Your task to perform on an android device: change the clock style Image 0: 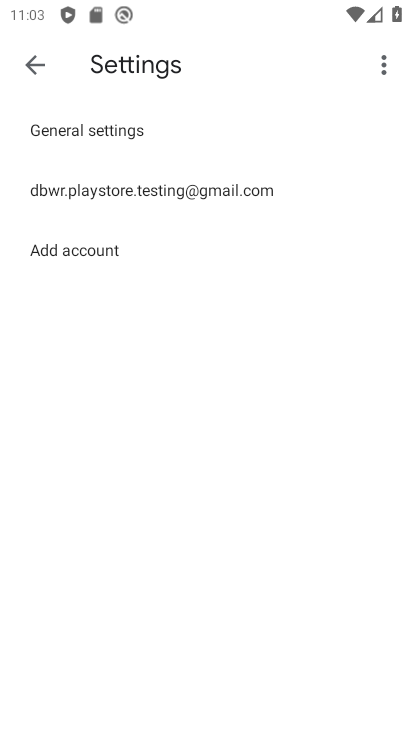
Step 0: press home button
Your task to perform on an android device: change the clock style Image 1: 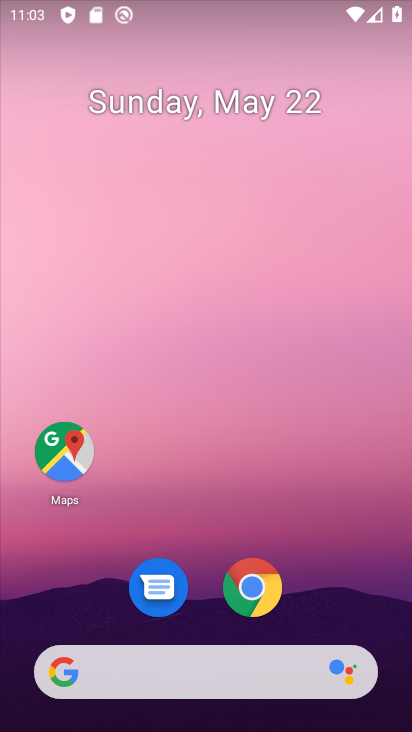
Step 1: drag from (409, 251) to (400, 135)
Your task to perform on an android device: change the clock style Image 2: 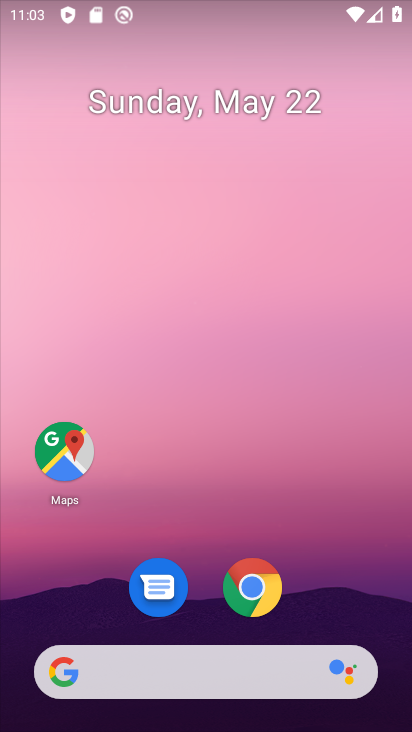
Step 2: drag from (234, 455) to (364, 60)
Your task to perform on an android device: change the clock style Image 3: 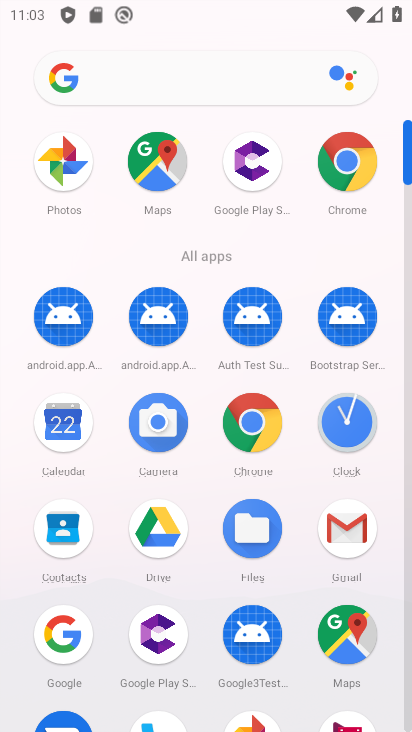
Step 3: click (362, 445)
Your task to perform on an android device: change the clock style Image 4: 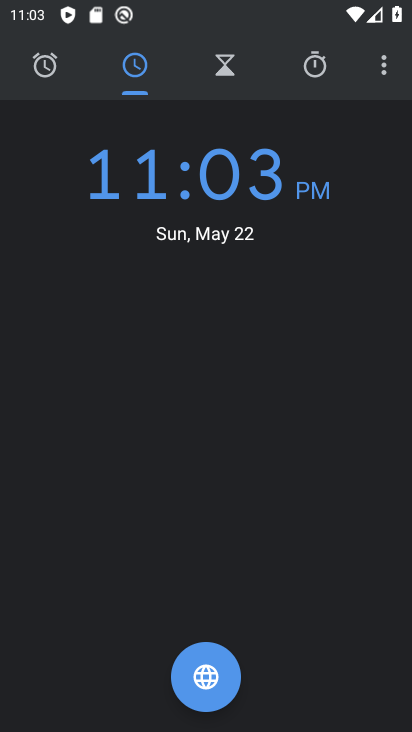
Step 4: click (395, 68)
Your task to perform on an android device: change the clock style Image 5: 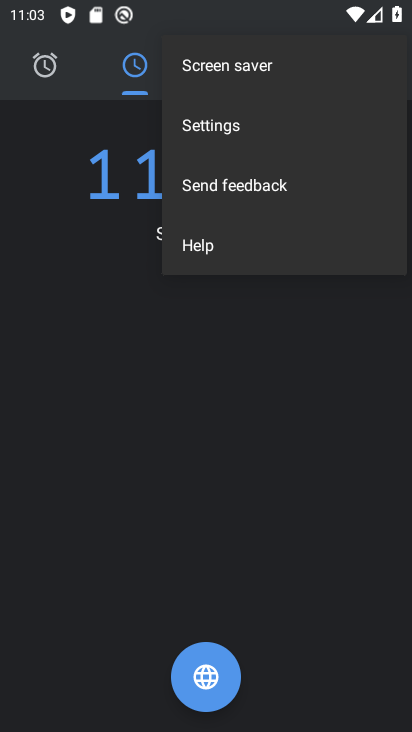
Step 5: click (266, 130)
Your task to perform on an android device: change the clock style Image 6: 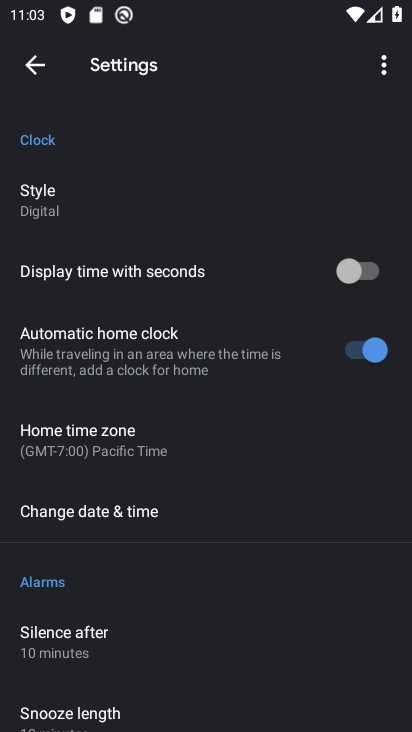
Step 6: click (95, 195)
Your task to perform on an android device: change the clock style Image 7: 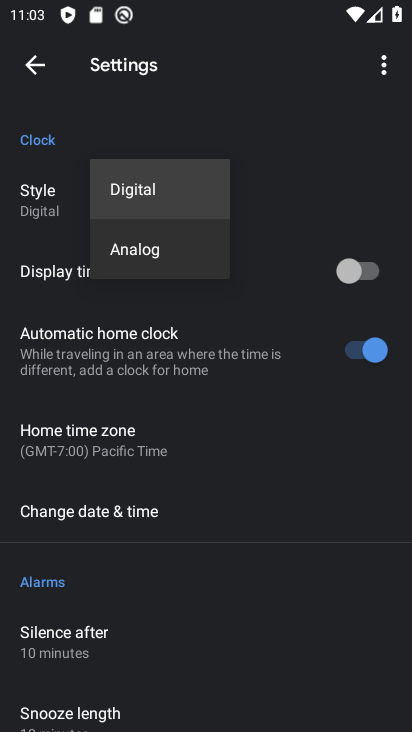
Step 7: click (123, 253)
Your task to perform on an android device: change the clock style Image 8: 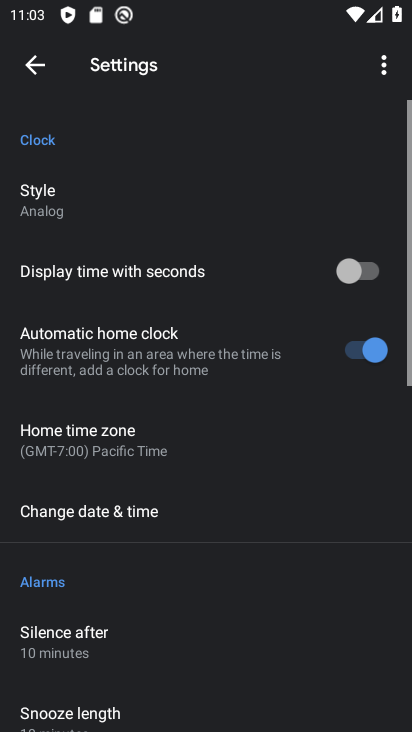
Step 8: task complete